Your task to perform on an android device: turn on airplane mode Image 0: 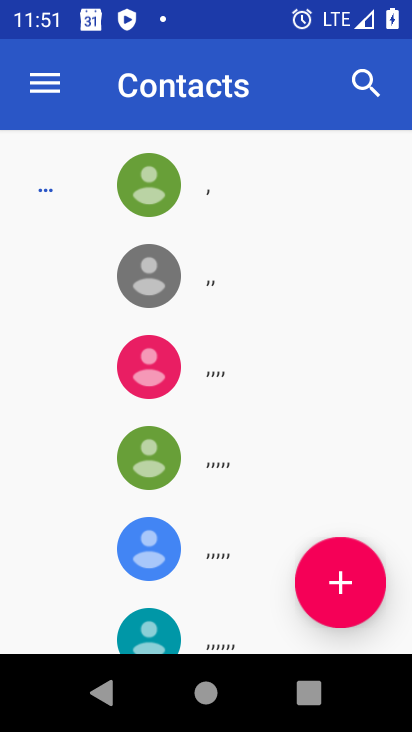
Step 0: drag from (330, 14) to (207, 578)
Your task to perform on an android device: turn on airplane mode Image 1: 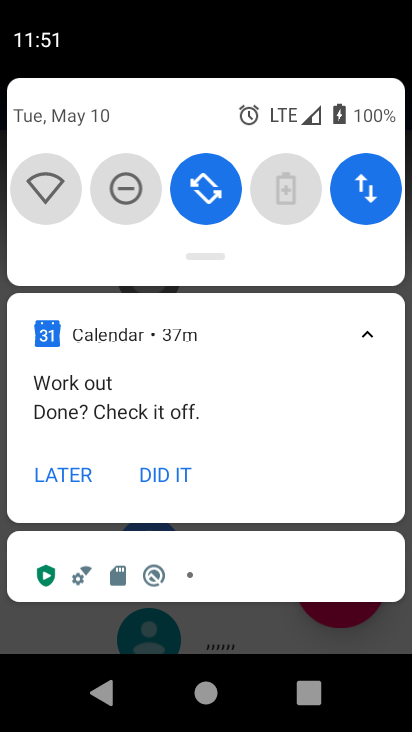
Step 1: drag from (191, 222) to (207, 496)
Your task to perform on an android device: turn on airplane mode Image 2: 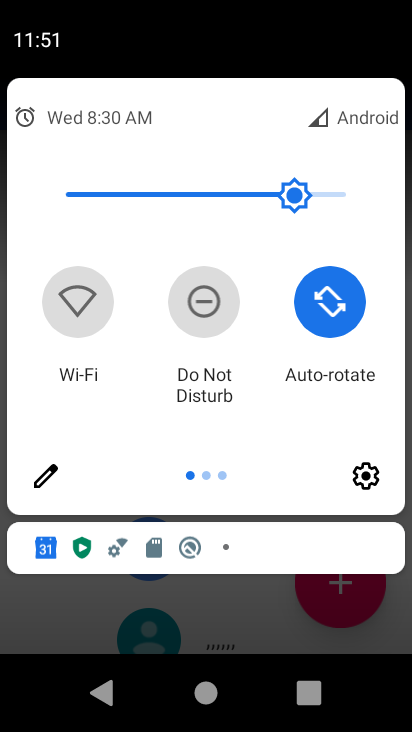
Step 2: drag from (353, 278) to (43, 261)
Your task to perform on an android device: turn on airplane mode Image 3: 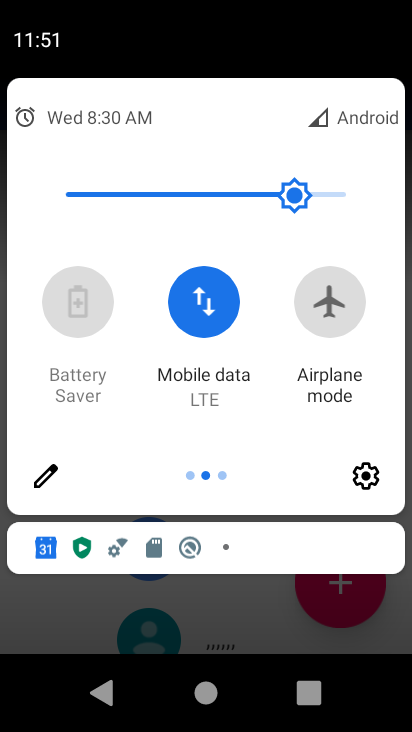
Step 3: click (334, 309)
Your task to perform on an android device: turn on airplane mode Image 4: 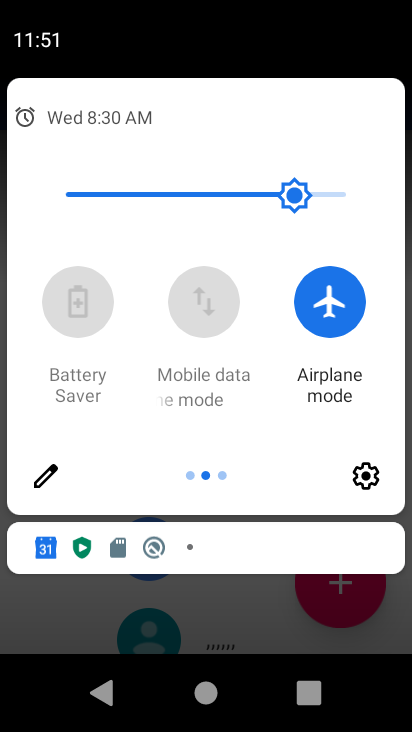
Step 4: task complete